Your task to perform on an android device: Go to Maps Image 0: 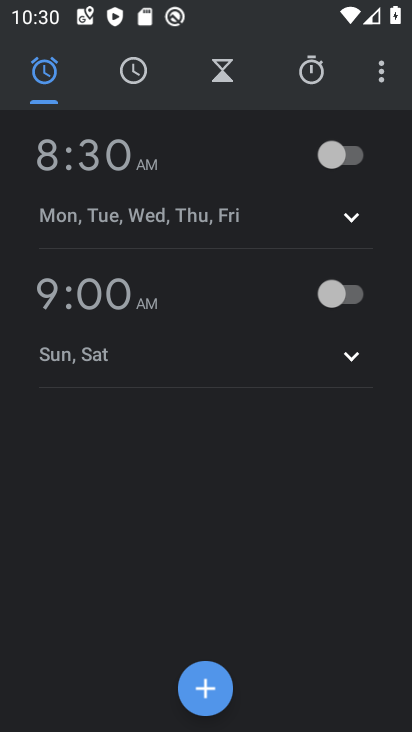
Step 0: press home button
Your task to perform on an android device: Go to Maps Image 1: 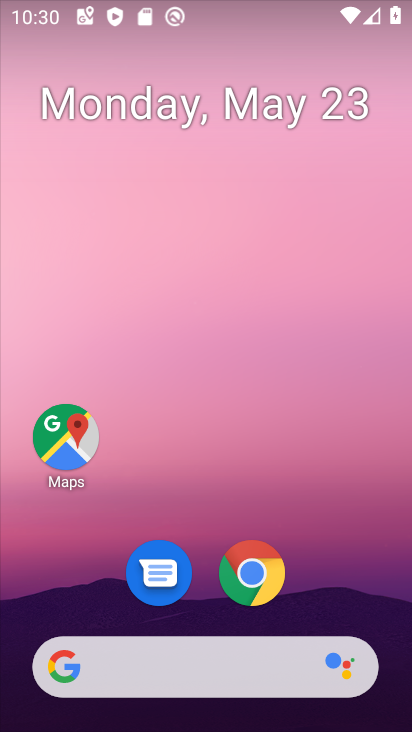
Step 1: drag from (195, 696) to (208, 271)
Your task to perform on an android device: Go to Maps Image 2: 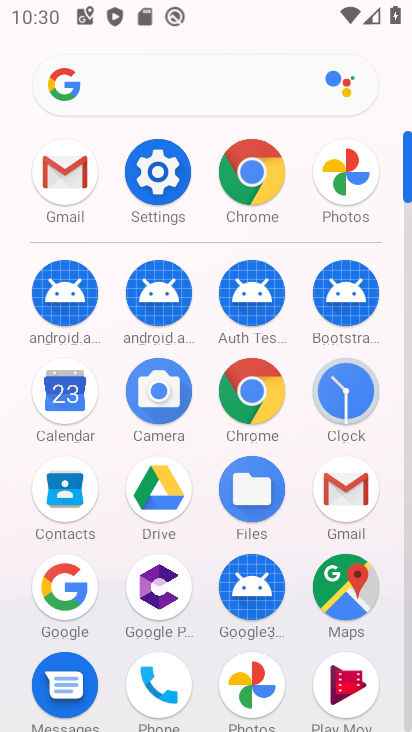
Step 2: click (357, 598)
Your task to perform on an android device: Go to Maps Image 3: 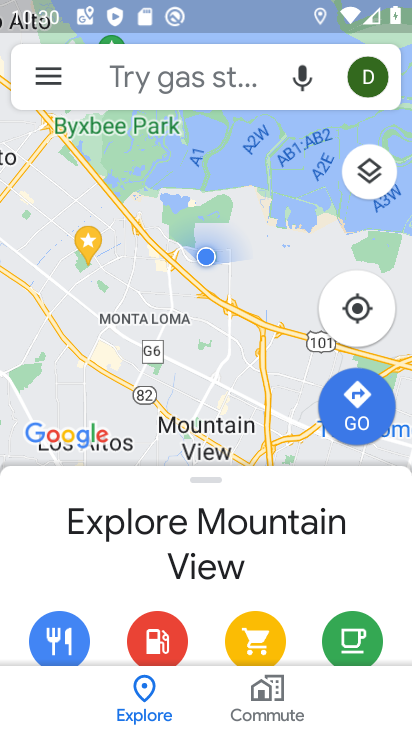
Step 3: task complete